Your task to perform on an android device: turn smart compose on in the gmail app Image 0: 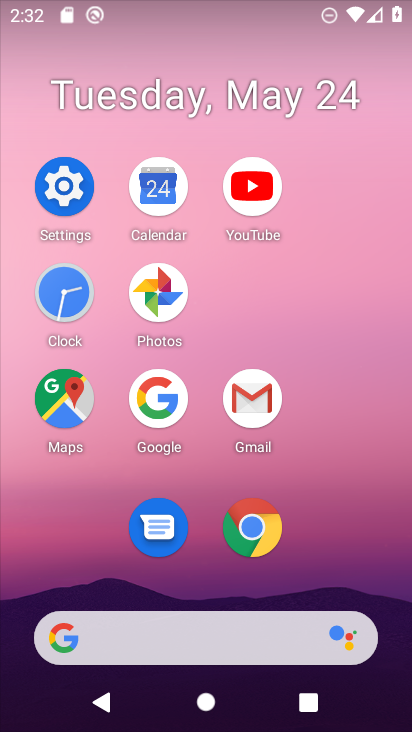
Step 0: click (249, 425)
Your task to perform on an android device: turn smart compose on in the gmail app Image 1: 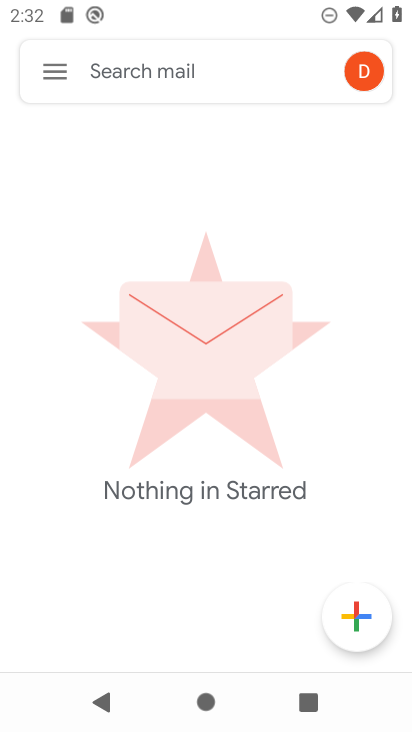
Step 1: click (54, 73)
Your task to perform on an android device: turn smart compose on in the gmail app Image 2: 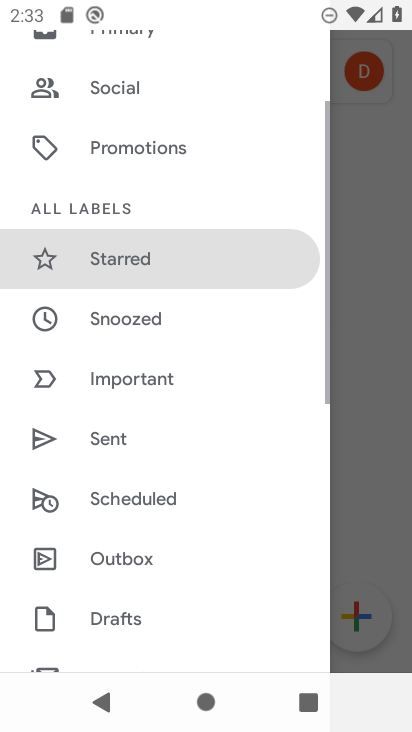
Step 2: drag from (169, 537) to (265, 204)
Your task to perform on an android device: turn smart compose on in the gmail app Image 3: 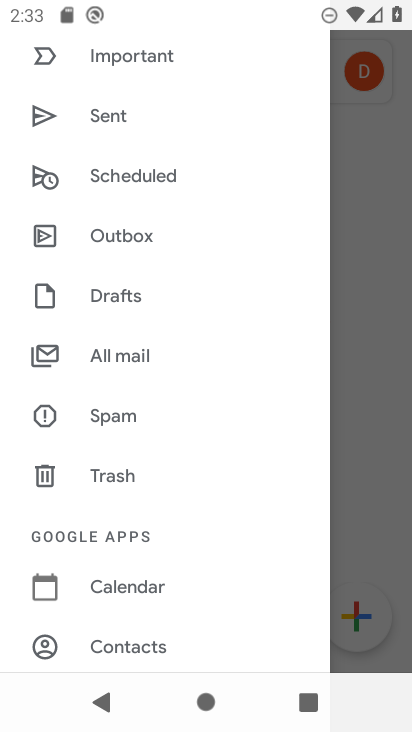
Step 3: drag from (195, 569) to (237, 229)
Your task to perform on an android device: turn smart compose on in the gmail app Image 4: 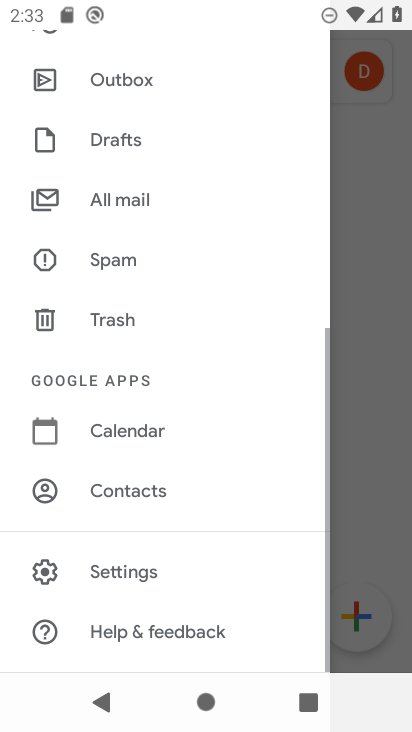
Step 4: click (128, 570)
Your task to perform on an android device: turn smart compose on in the gmail app Image 5: 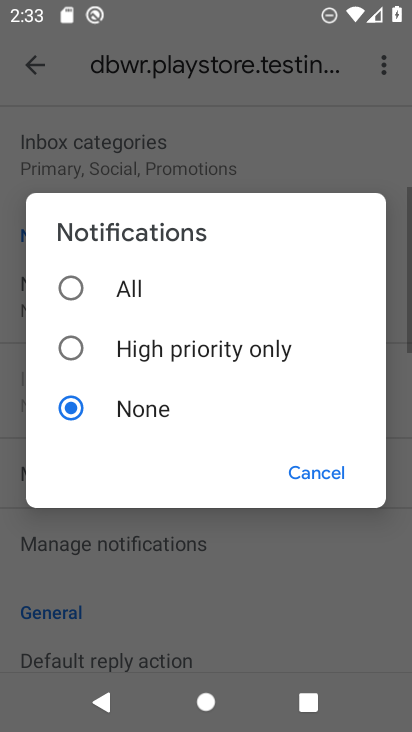
Step 5: click (324, 459)
Your task to perform on an android device: turn smart compose on in the gmail app Image 6: 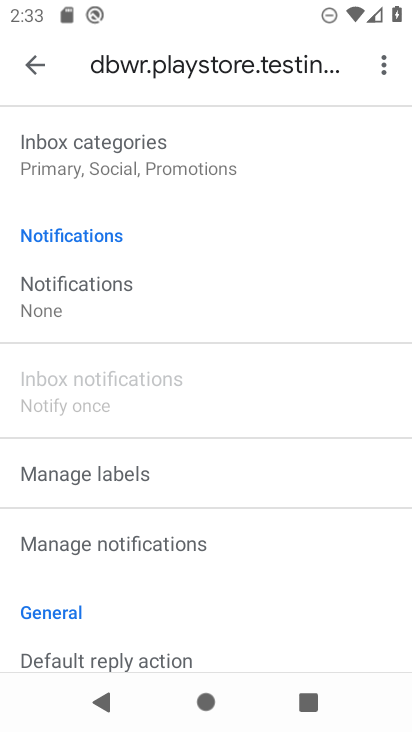
Step 6: task complete